Your task to perform on an android device: Go to accessibility settings Image 0: 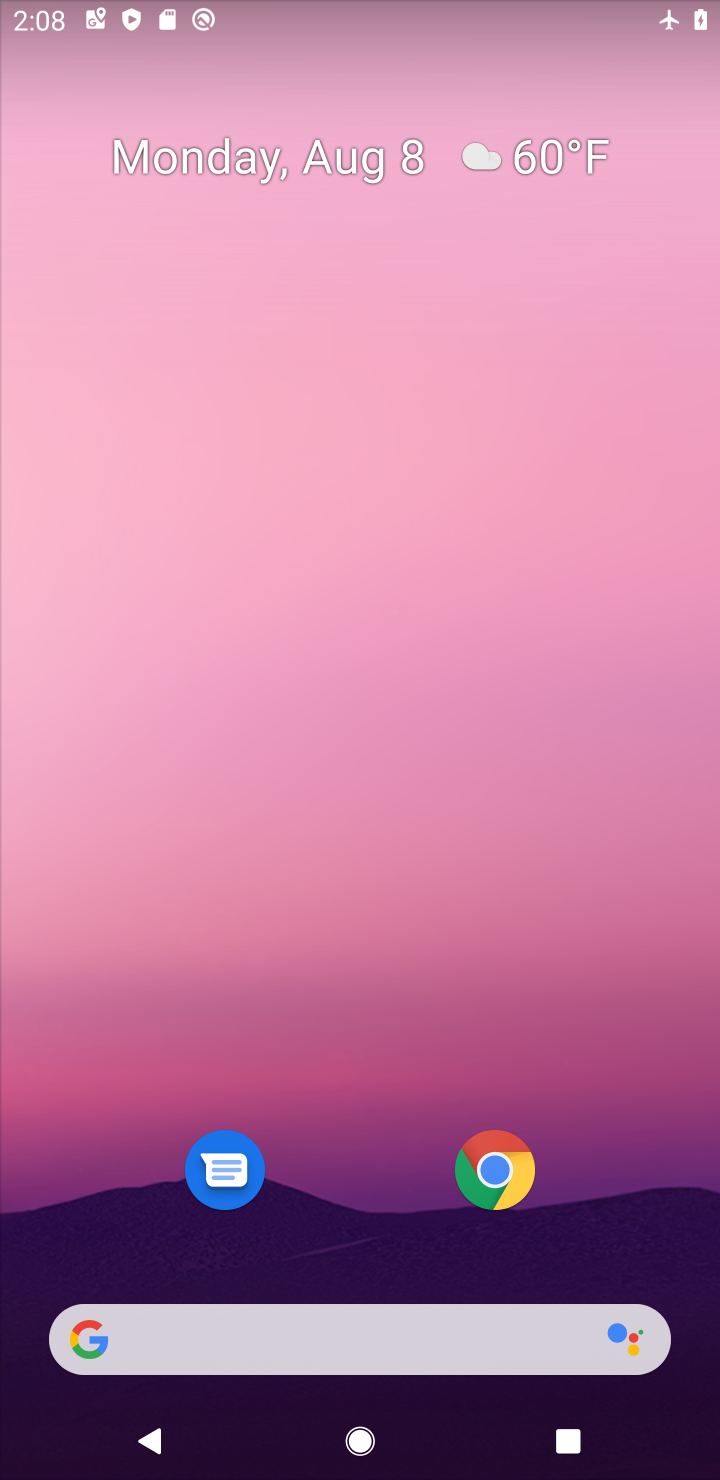
Step 0: drag from (360, 1076) to (369, 472)
Your task to perform on an android device: Go to accessibility settings Image 1: 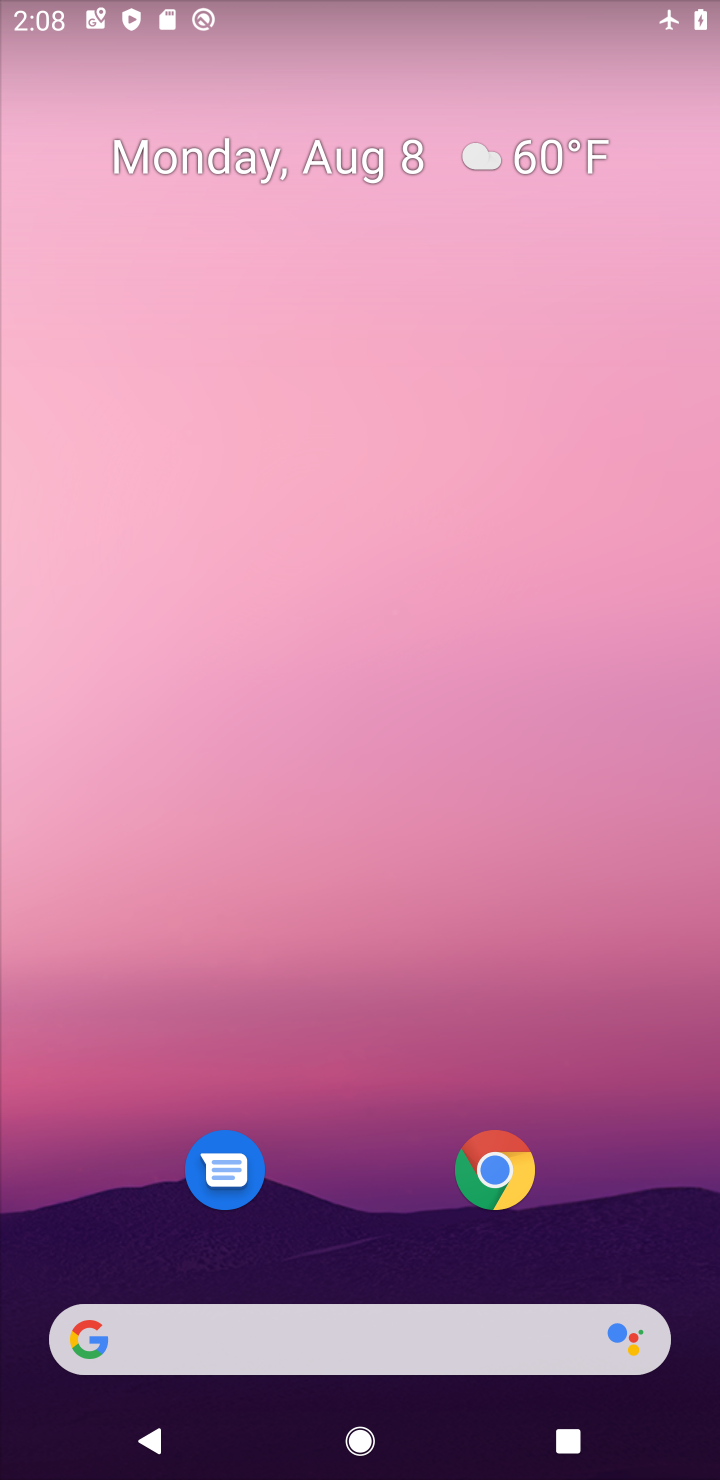
Step 1: drag from (346, 955) to (343, 444)
Your task to perform on an android device: Go to accessibility settings Image 2: 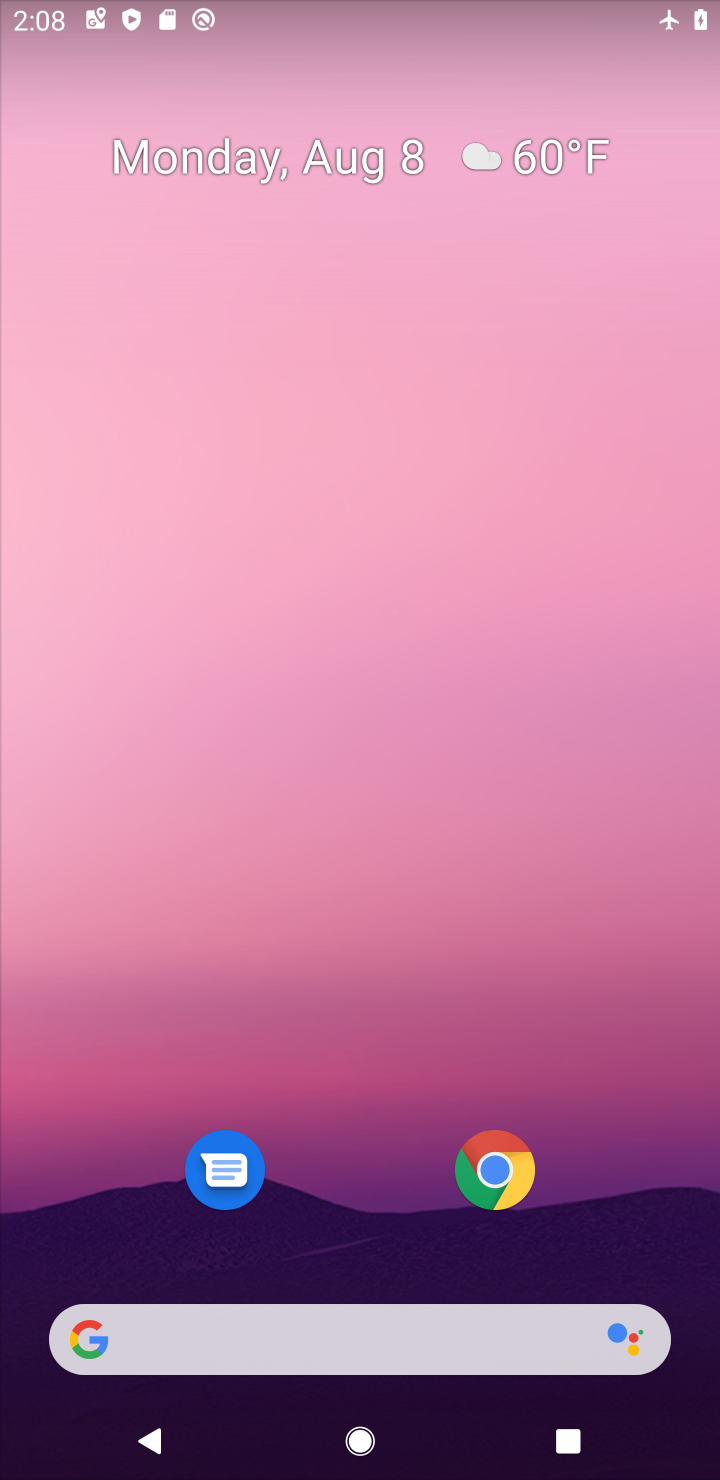
Step 2: drag from (312, 1245) to (324, 354)
Your task to perform on an android device: Go to accessibility settings Image 3: 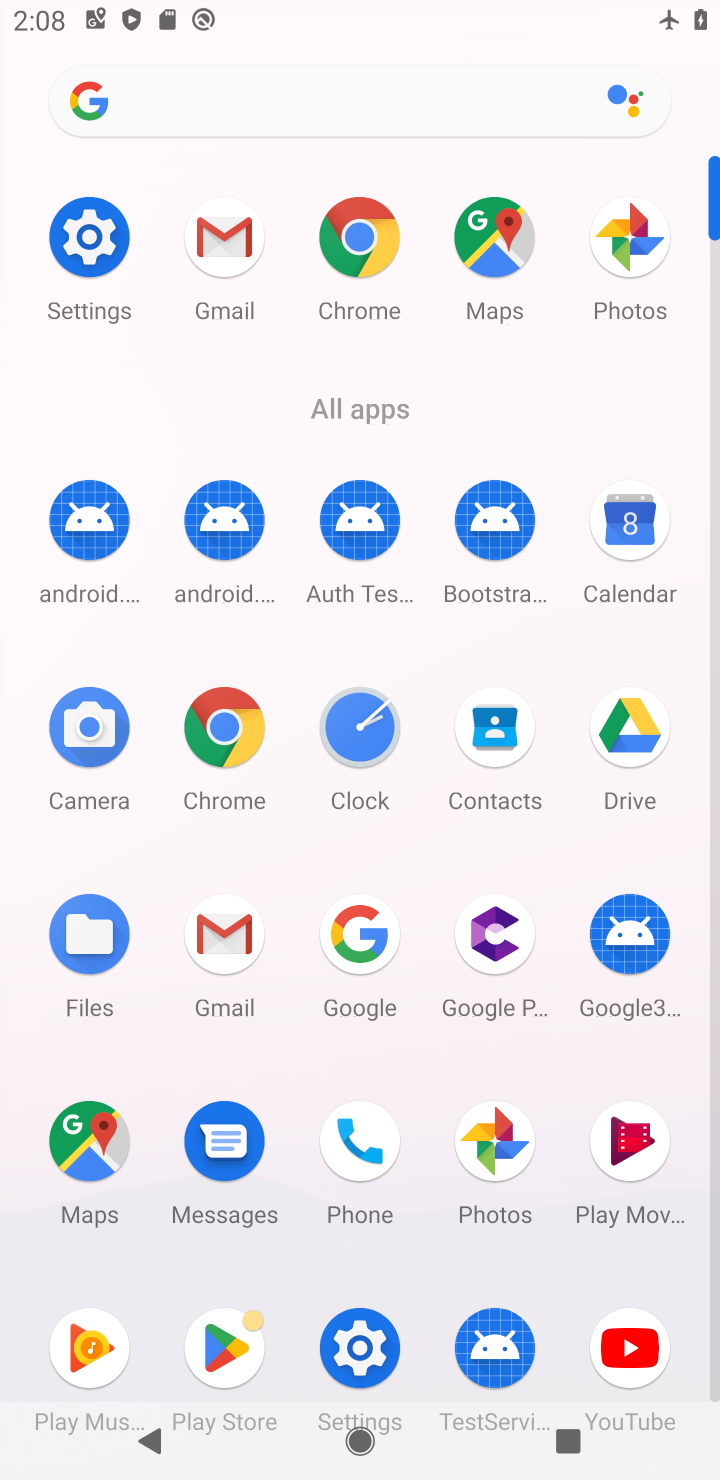
Step 3: click (106, 232)
Your task to perform on an android device: Go to accessibility settings Image 4: 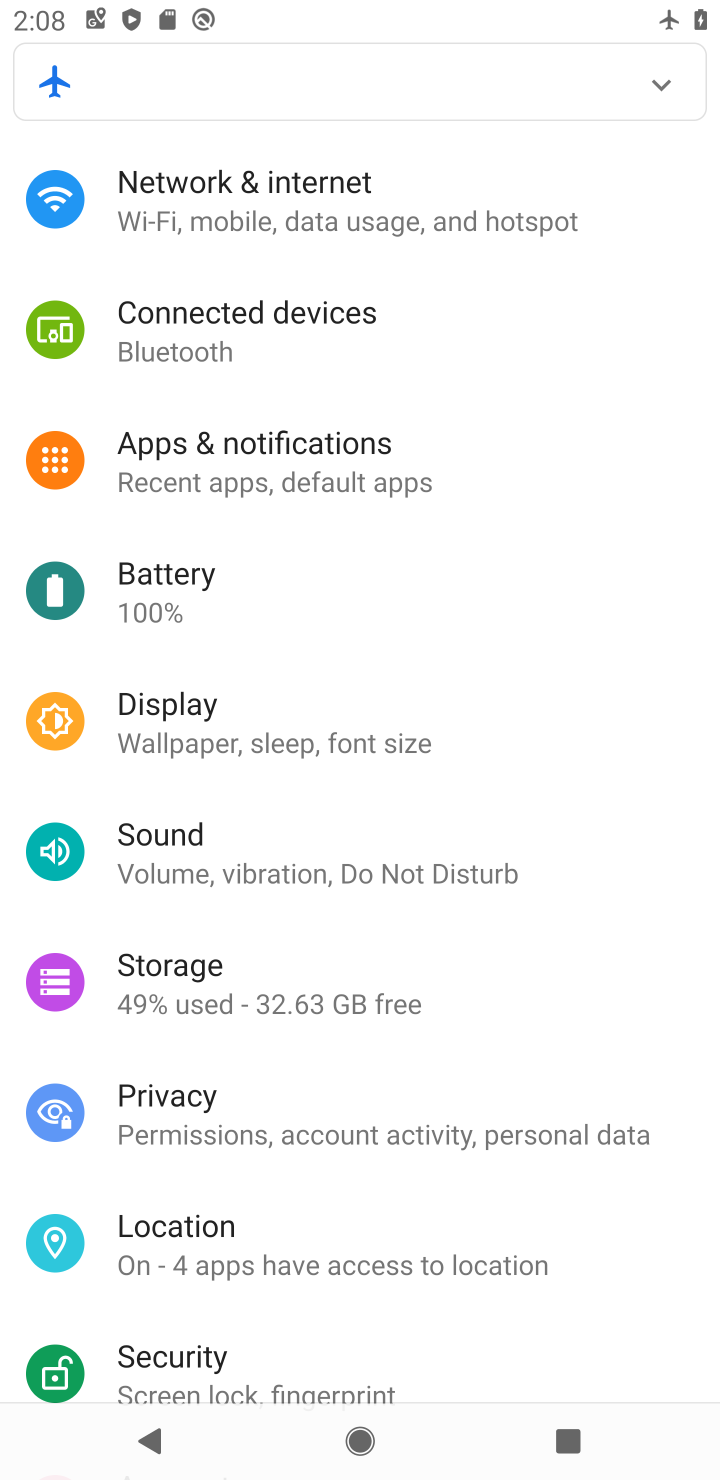
Step 4: drag from (263, 1293) to (363, 582)
Your task to perform on an android device: Go to accessibility settings Image 5: 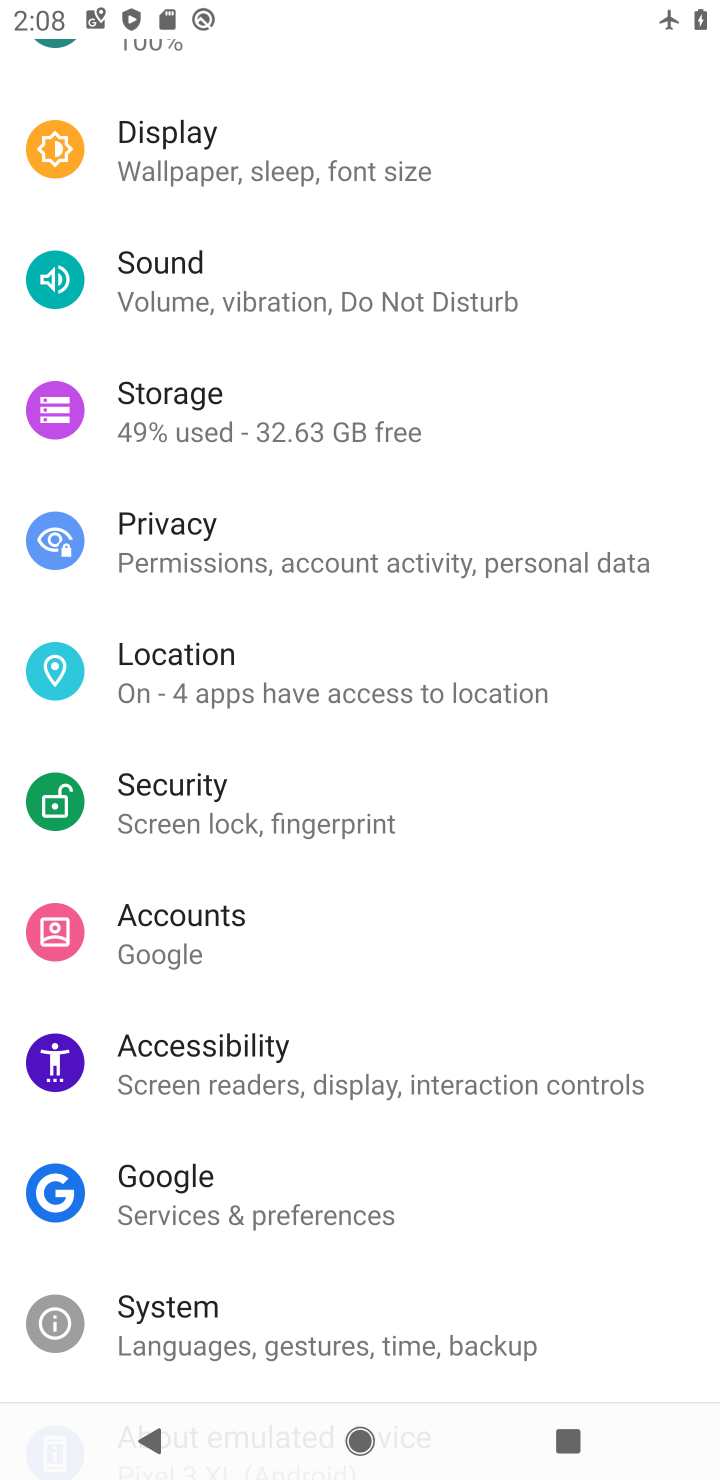
Step 5: click (282, 1056)
Your task to perform on an android device: Go to accessibility settings Image 6: 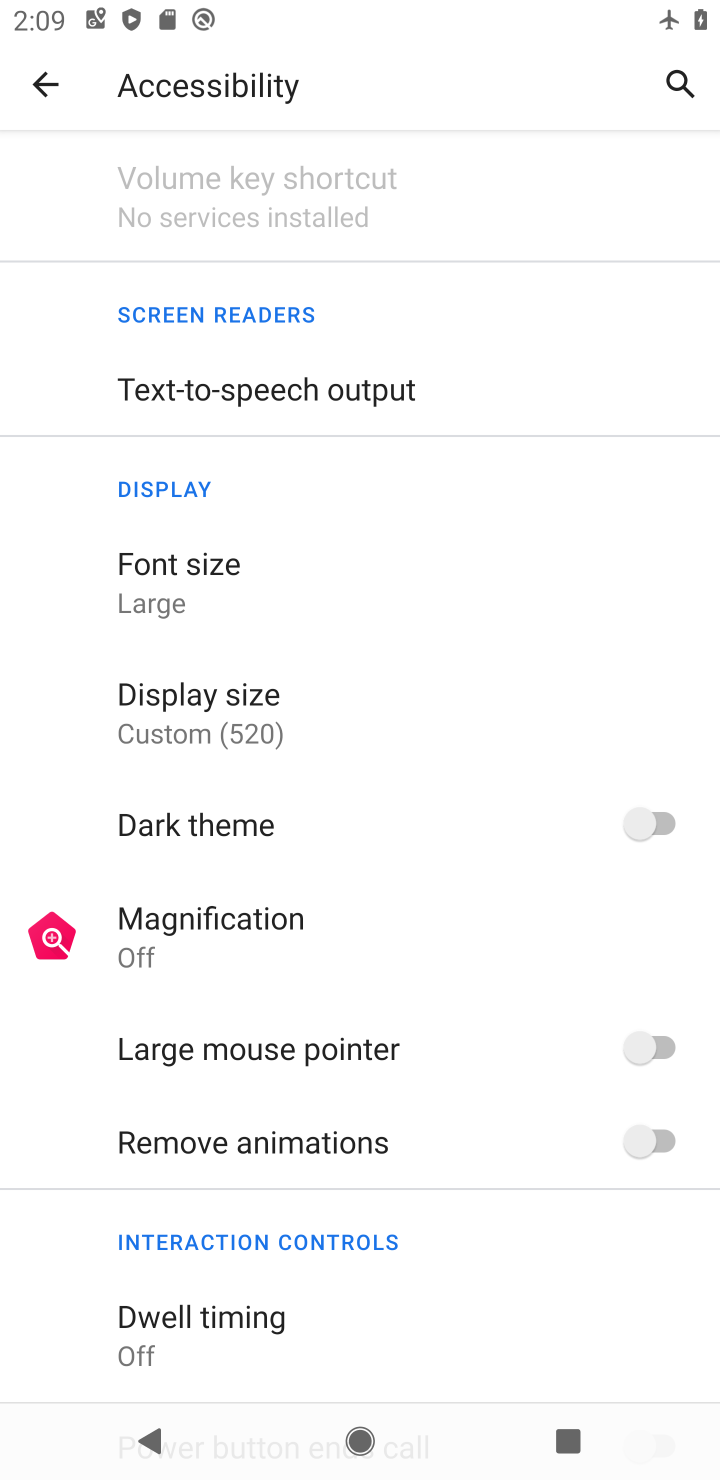
Step 6: task complete